Your task to perform on an android device: Open Google Image 0: 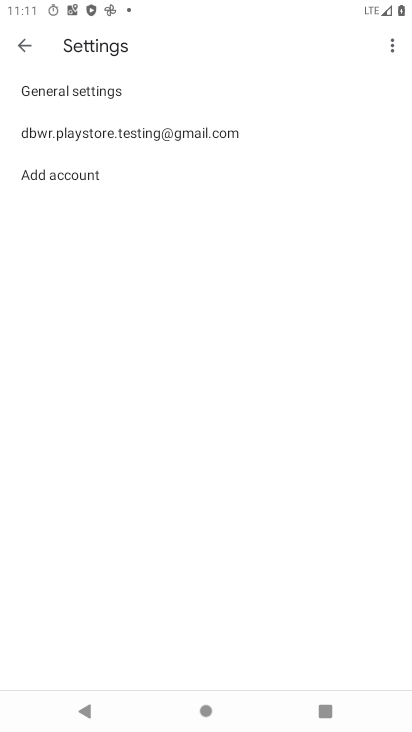
Step 0: press home button
Your task to perform on an android device: Open Google Image 1: 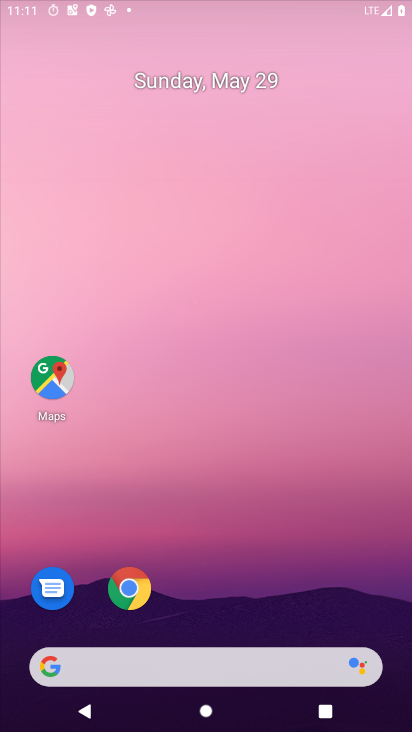
Step 1: drag from (259, 541) to (282, 75)
Your task to perform on an android device: Open Google Image 2: 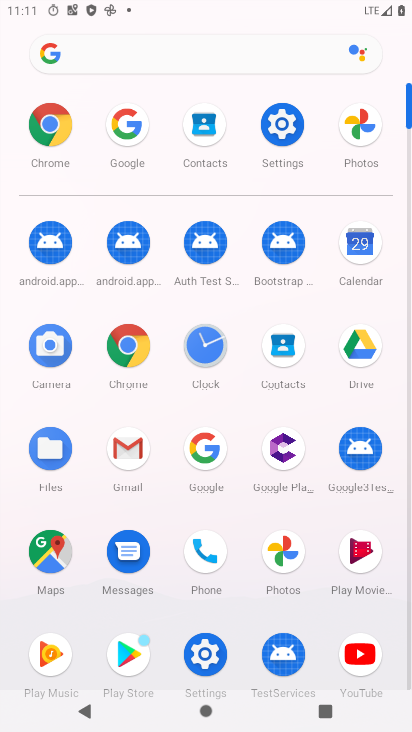
Step 2: click (192, 456)
Your task to perform on an android device: Open Google Image 3: 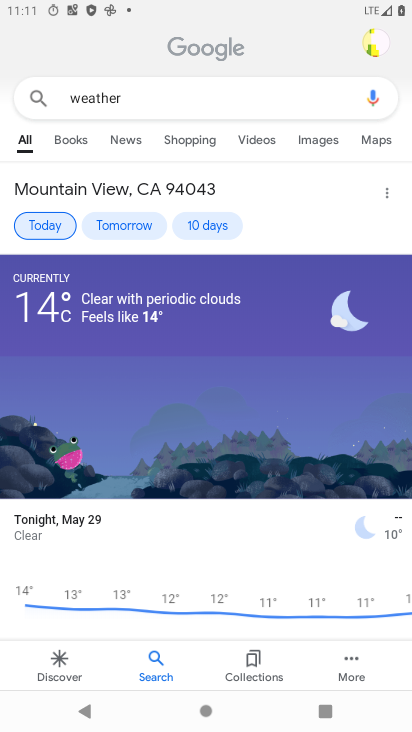
Step 3: task complete